Your task to perform on an android device: What's on my calendar tomorrow? Image 0: 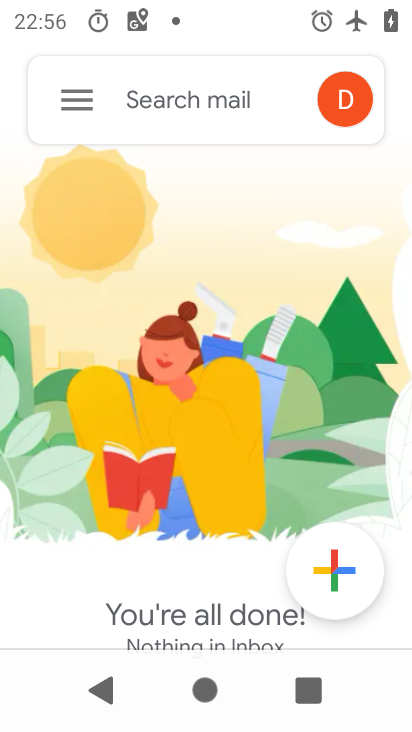
Step 0: press home button
Your task to perform on an android device: What's on my calendar tomorrow? Image 1: 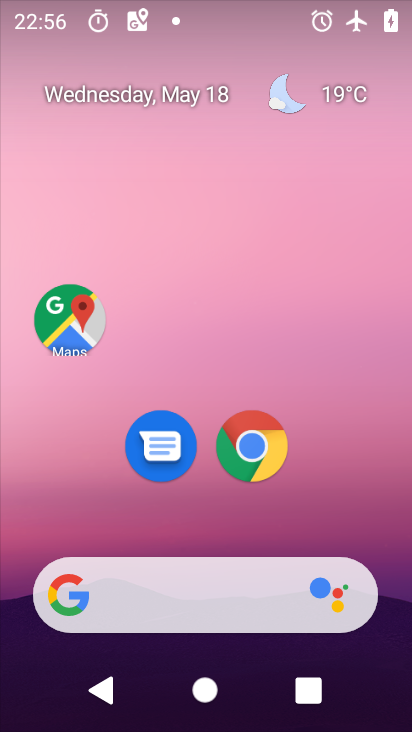
Step 1: drag from (200, 602) to (304, 155)
Your task to perform on an android device: What's on my calendar tomorrow? Image 2: 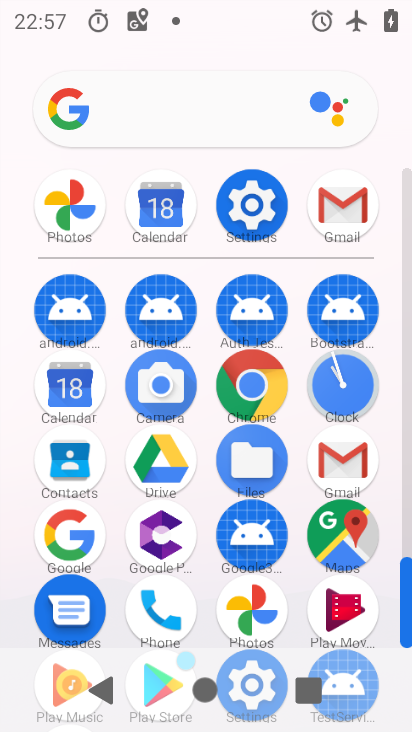
Step 2: click (175, 221)
Your task to perform on an android device: What's on my calendar tomorrow? Image 3: 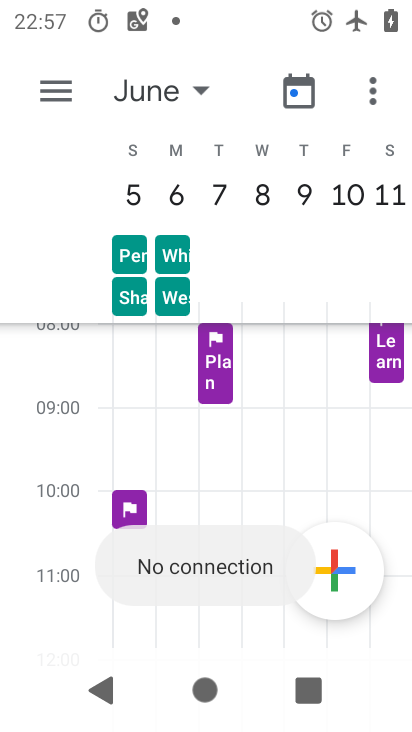
Step 3: click (144, 96)
Your task to perform on an android device: What's on my calendar tomorrow? Image 4: 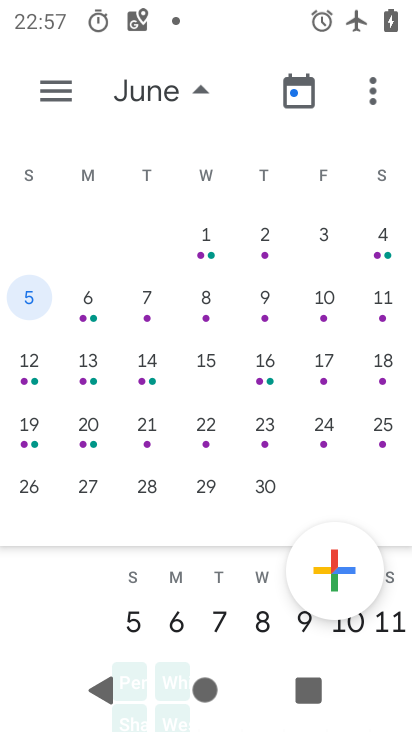
Step 4: drag from (81, 397) to (385, 404)
Your task to perform on an android device: What's on my calendar tomorrow? Image 5: 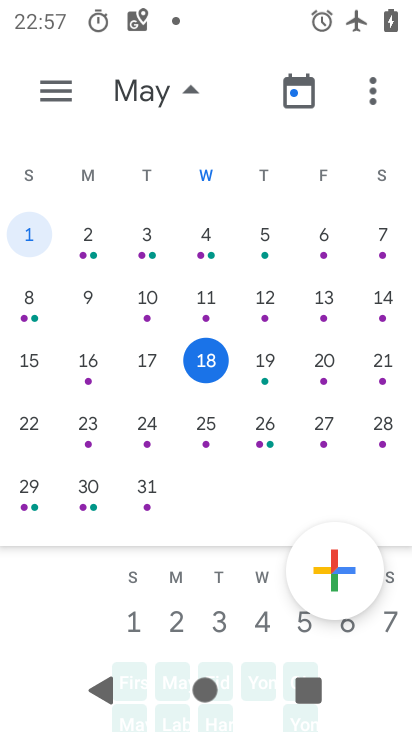
Step 5: click (270, 360)
Your task to perform on an android device: What's on my calendar tomorrow? Image 6: 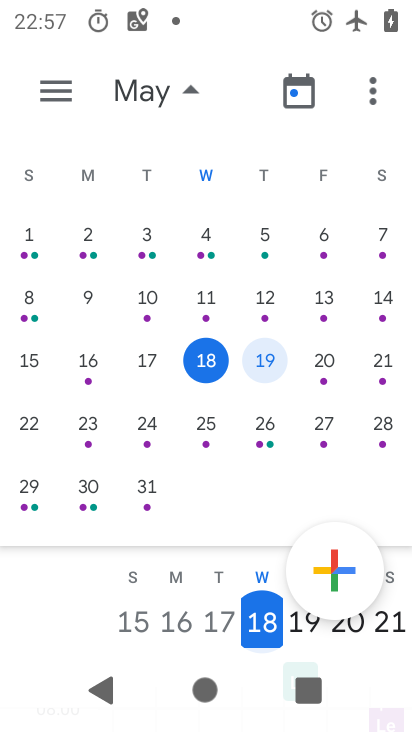
Step 6: click (58, 88)
Your task to perform on an android device: What's on my calendar tomorrow? Image 7: 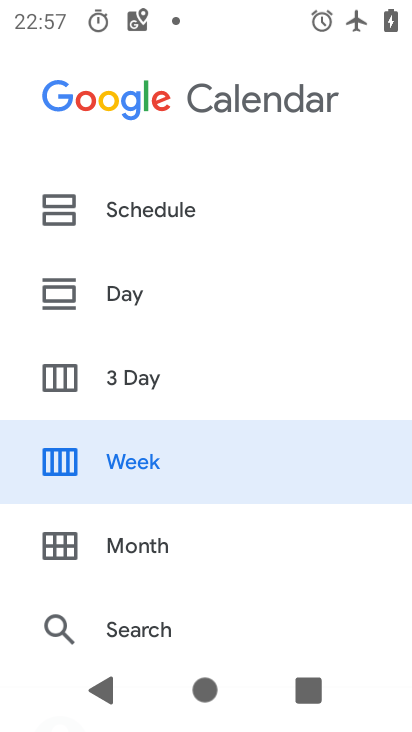
Step 7: click (116, 285)
Your task to perform on an android device: What's on my calendar tomorrow? Image 8: 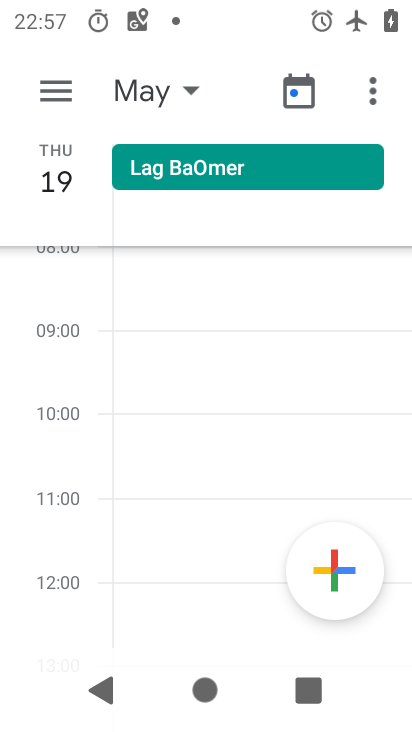
Step 8: click (42, 83)
Your task to perform on an android device: What's on my calendar tomorrow? Image 9: 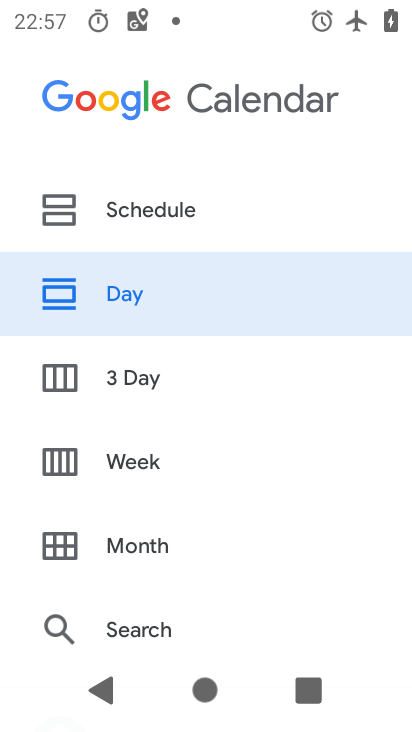
Step 9: click (121, 213)
Your task to perform on an android device: What's on my calendar tomorrow? Image 10: 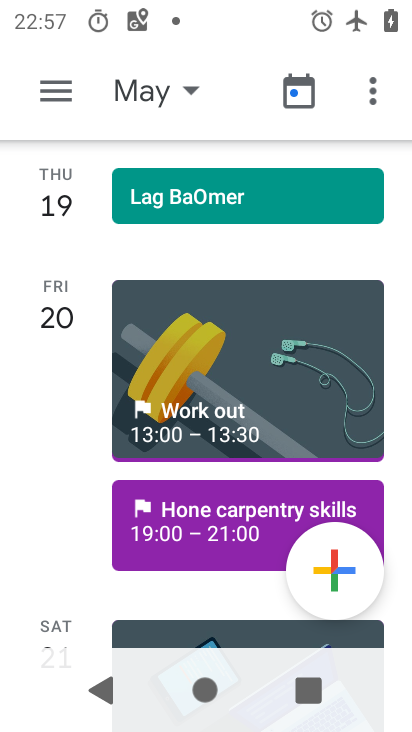
Step 10: click (151, 207)
Your task to perform on an android device: What's on my calendar tomorrow? Image 11: 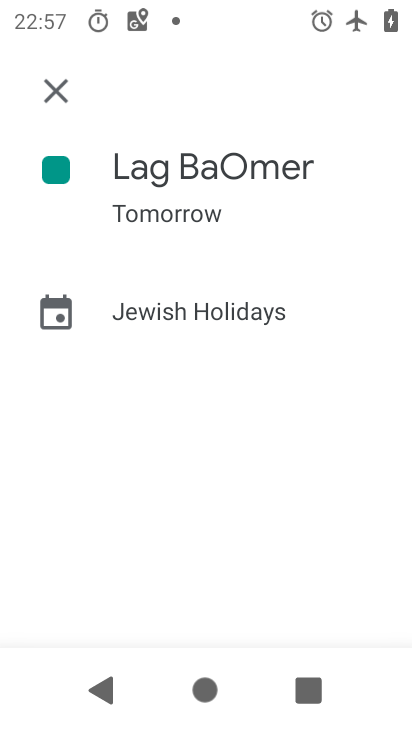
Step 11: task complete